Your task to perform on an android device: open a new tab in the chrome app Image 0: 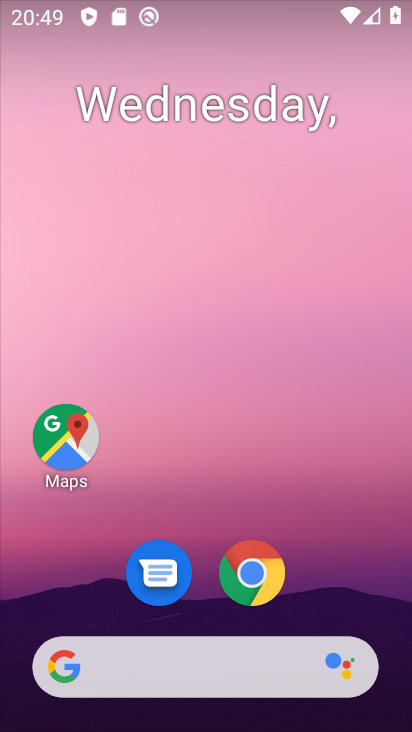
Step 0: drag from (350, 305) to (343, 123)
Your task to perform on an android device: open a new tab in the chrome app Image 1: 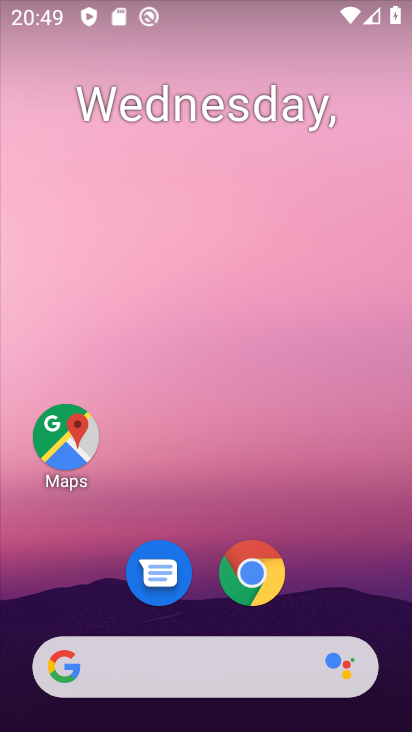
Step 1: click (260, 570)
Your task to perform on an android device: open a new tab in the chrome app Image 2: 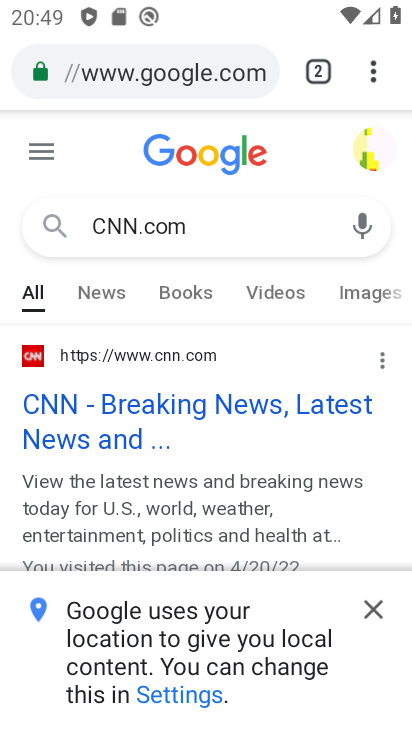
Step 2: click (365, 70)
Your task to perform on an android device: open a new tab in the chrome app Image 3: 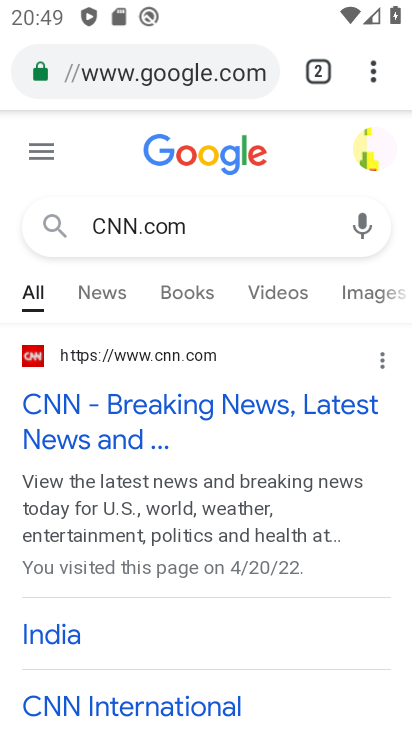
Step 3: click (375, 69)
Your task to perform on an android device: open a new tab in the chrome app Image 4: 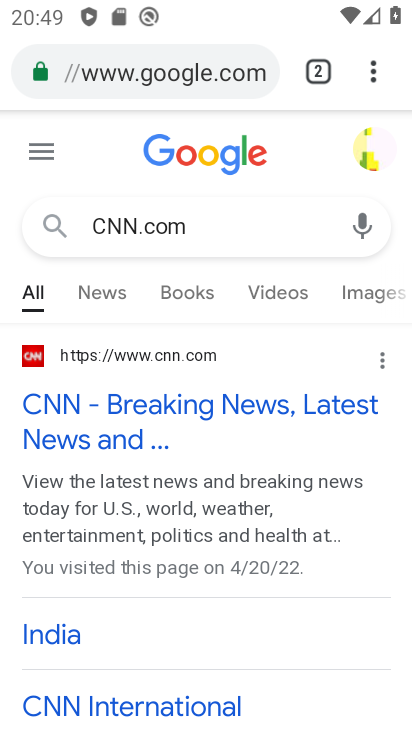
Step 4: click (132, 135)
Your task to perform on an android device: open a new tab in the chrome app Image 5: 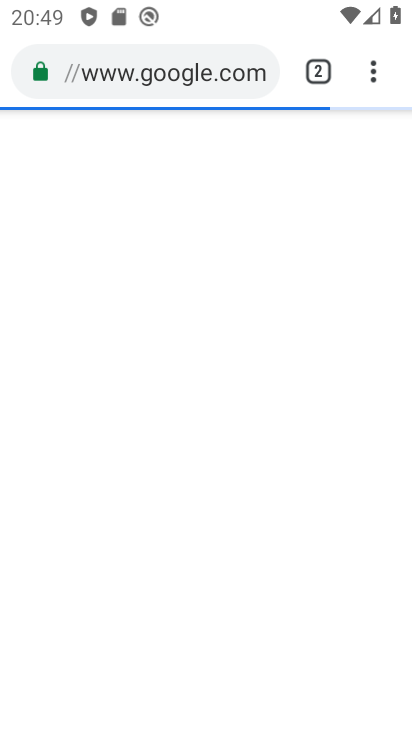
Step 5: click (369, 73)
Your task to perform on an android device: open a new tab in the chrome app Image 6: 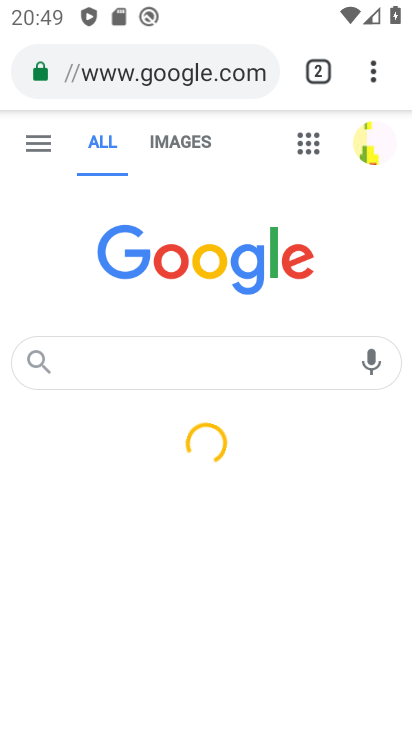
Step 6: click (369, 73)
Your task to perform on an android device: open a new tab in the chrome app Image 7: 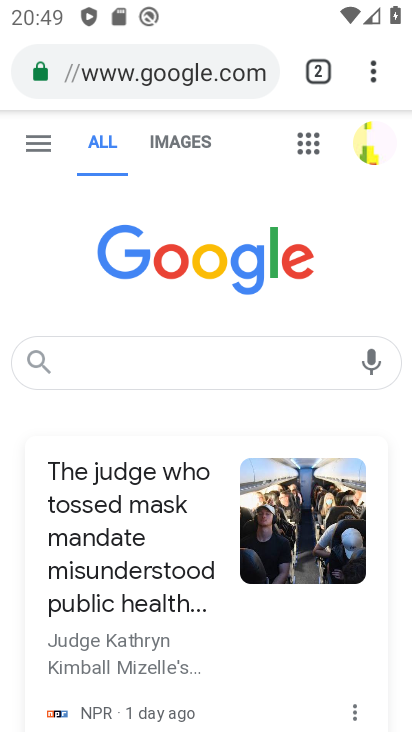
Step 7: click (376, 67)
Your task to perform on an android device: open a new tab in the chrome app Image 8: 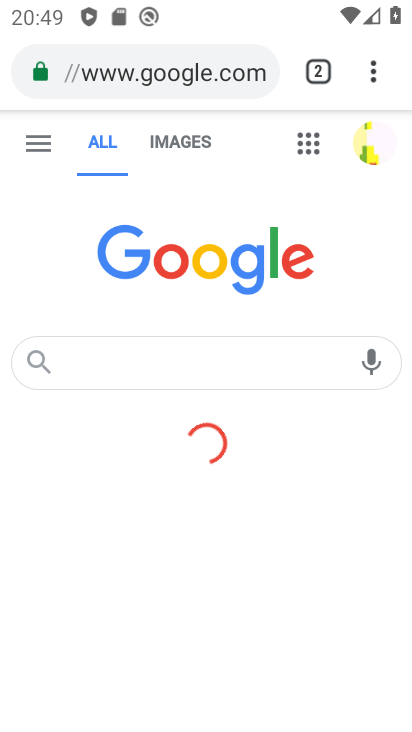
Step 8: click (369, 70)
Your task to perform on an android device: open a new tab in the chrome app Image 9: 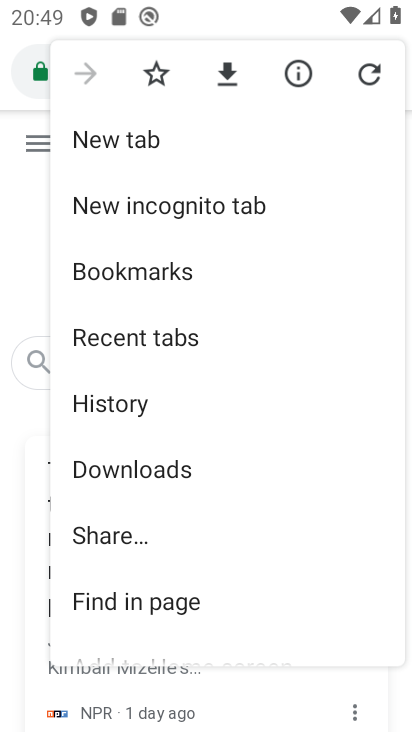
Step 9: click (138, 141)
Your task to perform on an android device: open a new tab in the chrome app Image 10: 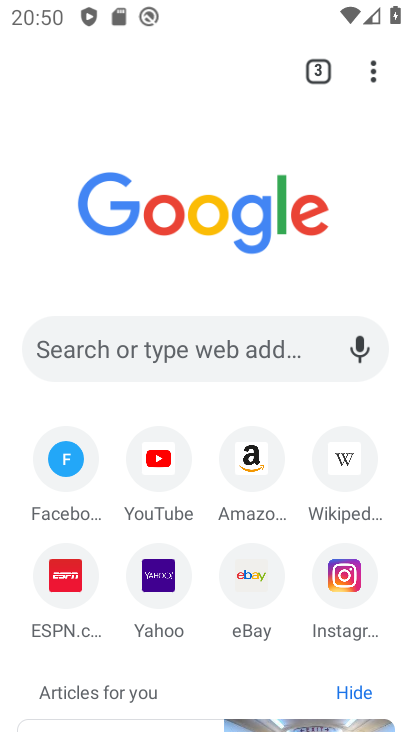
Step 10: task complete